Your task to perform on an android device: turn pop-ups on in chrome Image 0: 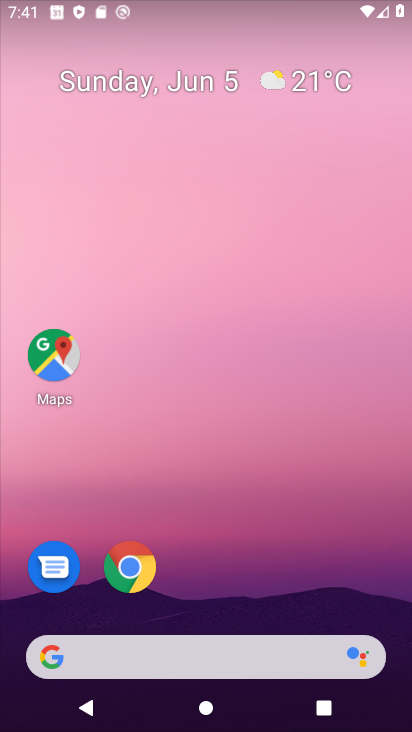
Step 0: click (127, 575)
Your task to perform on an android device: turn pop-ups on in chrome Image 1: 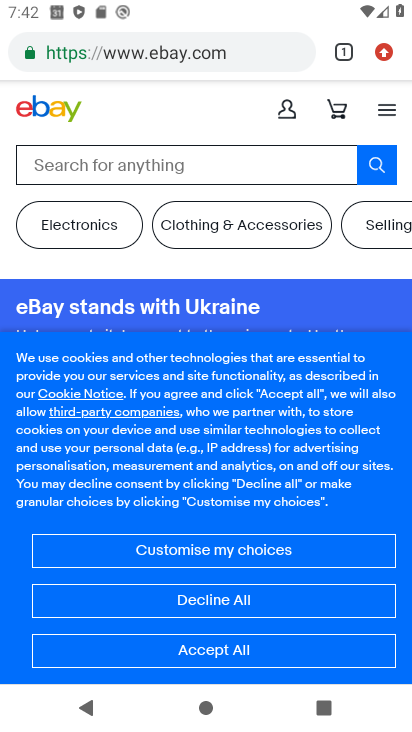
Step 1: click (382, 58)
Your task to perform on an android device: turn pop-ups on in chrome Image 2: 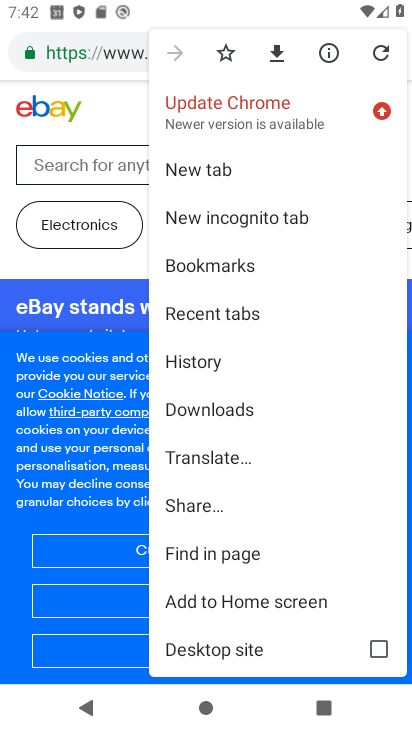
Step 2: drag from (209, 654) to (246, 281)
Your task to perform on an android device: turn pop-ups on in chrome Image 3: 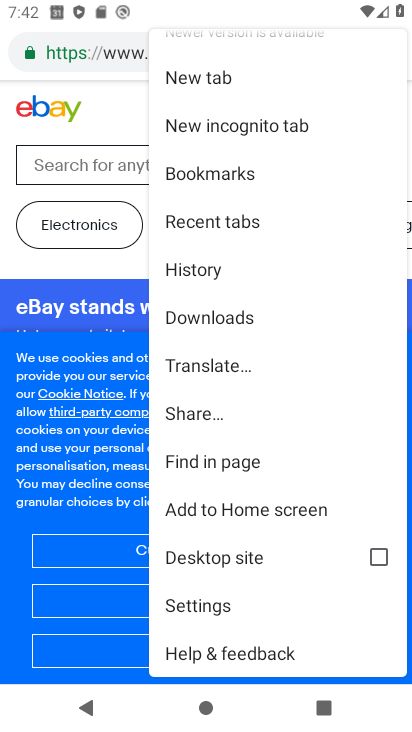
Step 3: click (200, 615)
Your task to perform on an android device: turn pop-ups on in chrome Image 4: 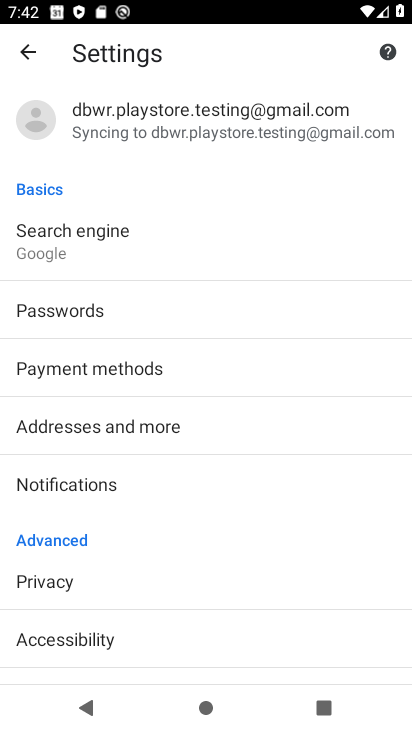
Step 4: drag from (104, 500) to (137, 320)
Your task to perform on an android device: turn pop-ups on in chrome Image 5: 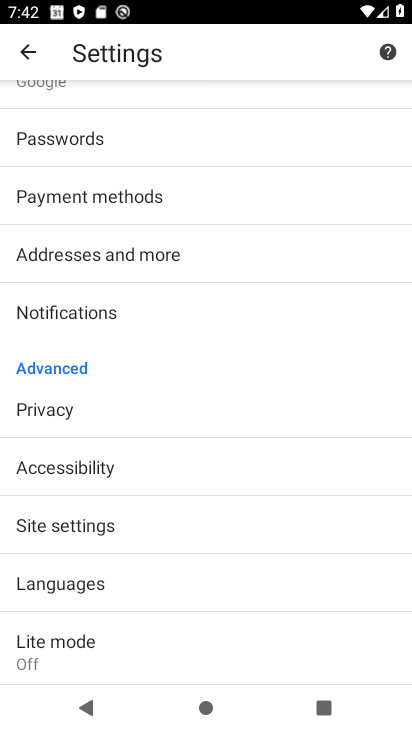
Step 5: click (54, 525)
Your task to perform on an android device: turn pop-ups on in chrome Image 6: 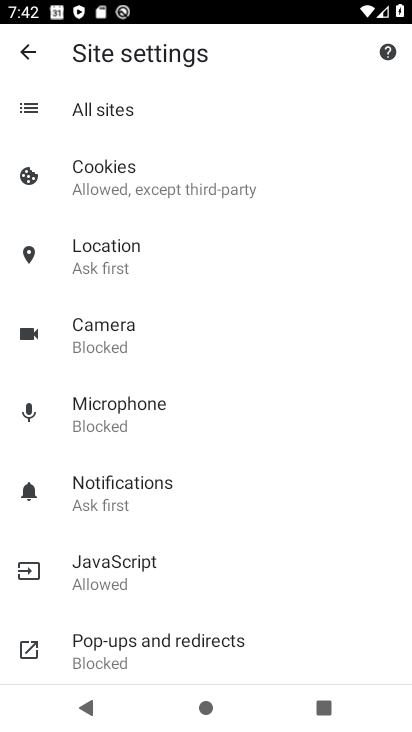
Step 6: click (156, 656)
Your task to perform on an android device: turn pop-ups on in chrome Image 7: 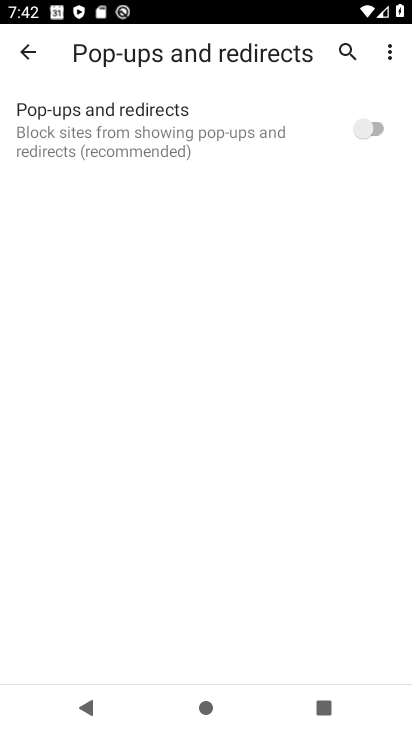
Step 7: click (375, 123)
Your task to perform on an android device: turn pop-ups on in chrome Image 8: 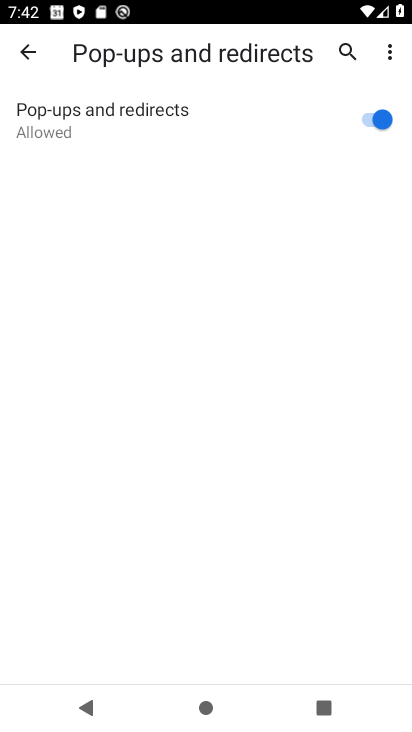
Step 8: task complete